Your task to perform on an android device: Go to accessibility settings Image 0: 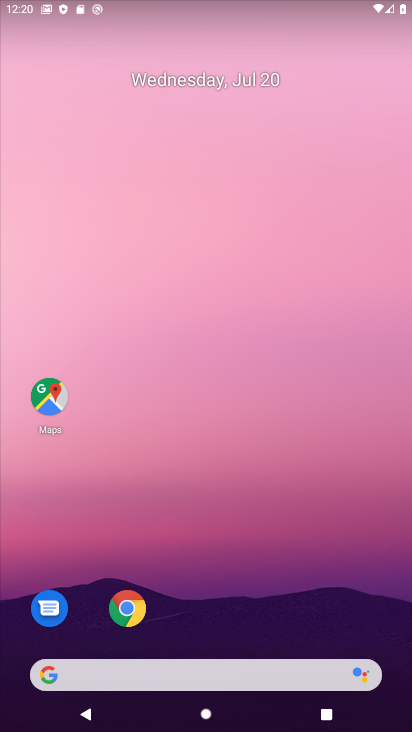
Step 0: drag from (186, 660) to (212, 109)
Your task to perform on an android device: Go to accessibility settings Image 1: 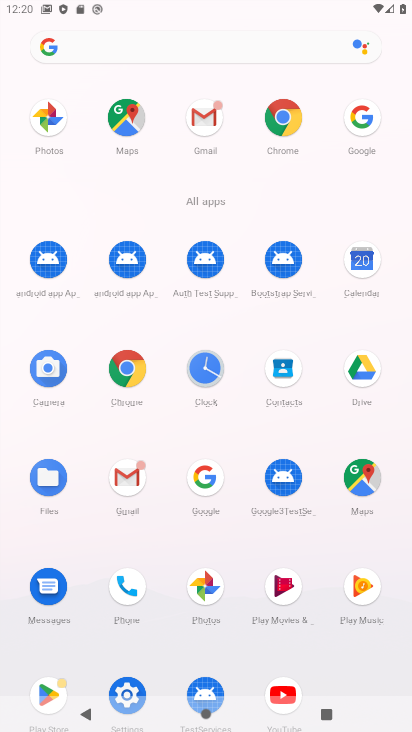
Step 1: click (131, 685)
Your task to perform on an android device: Go to accessibility settings Image 2: 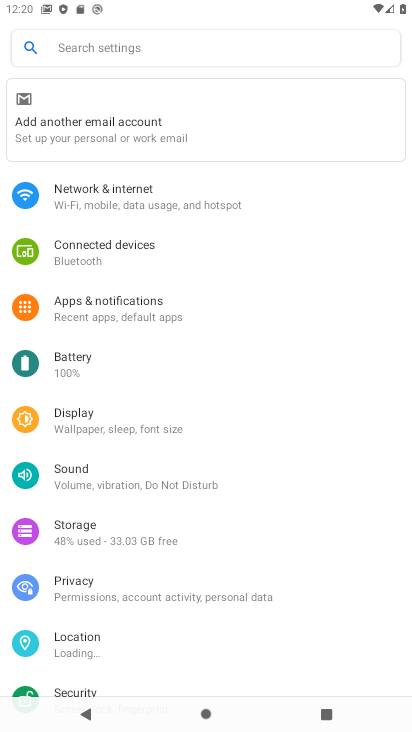
Step 2: drag from (153, 671) to (153, 347)
Your task to perform on an android device: Go to accessibility settings Image 3: 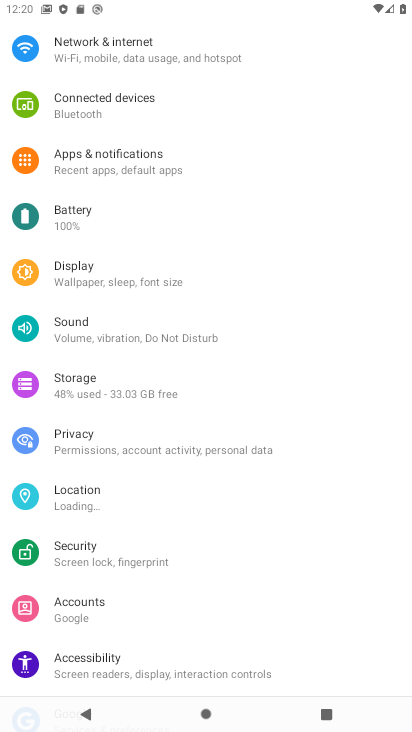
Step 3: click (68, 660)
Your task to perform on an android device: Go to accessibility settings Image 4: 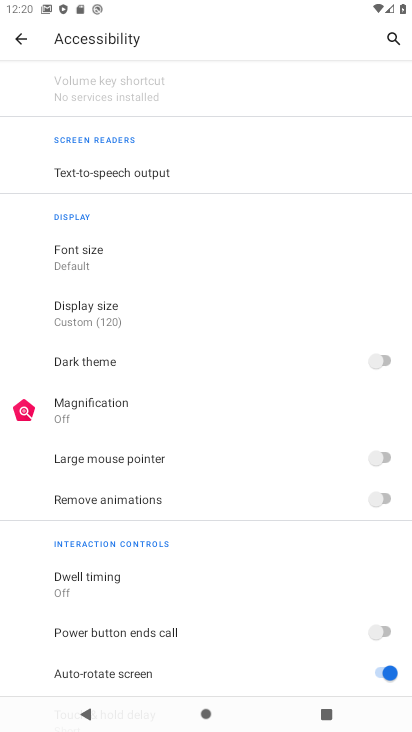
Step 4: task complete